Your task to perform on an android device: Do I have any events today? Image 0: 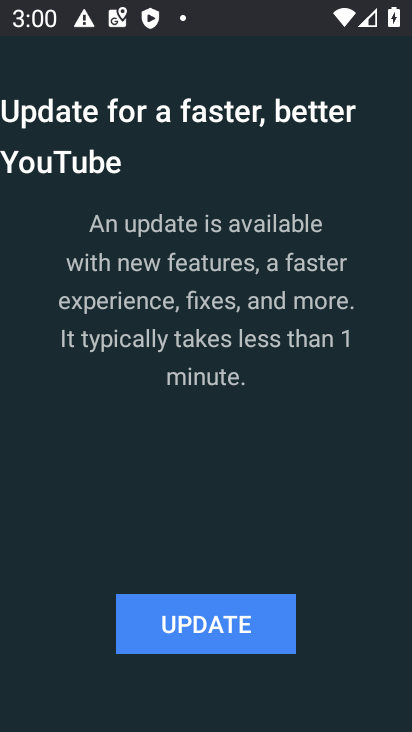
Step 0: press home button
Your task to perform on an android device: Do I have any events today? Image 1: 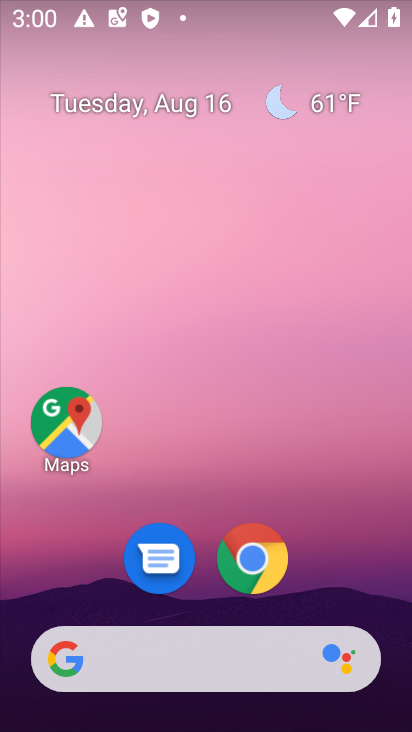
Step 1: drag from (382, 594) to (355, 181)
Your task to perform on an android device: Do I have any events today? Image 2: 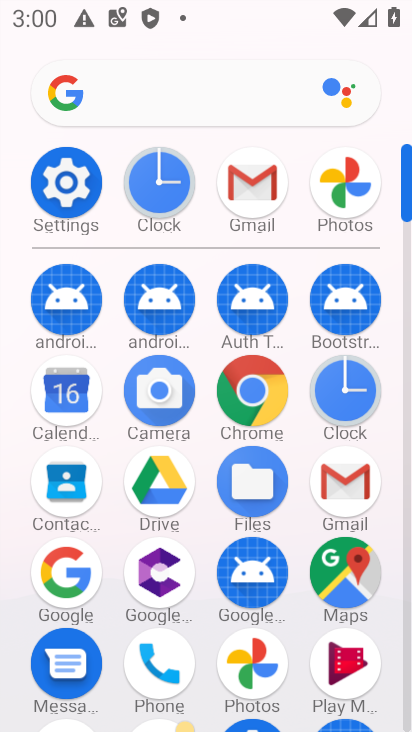
Step 2: click (409, 706)
Your task to perform on an android device: Do I have any events today? Image 3: 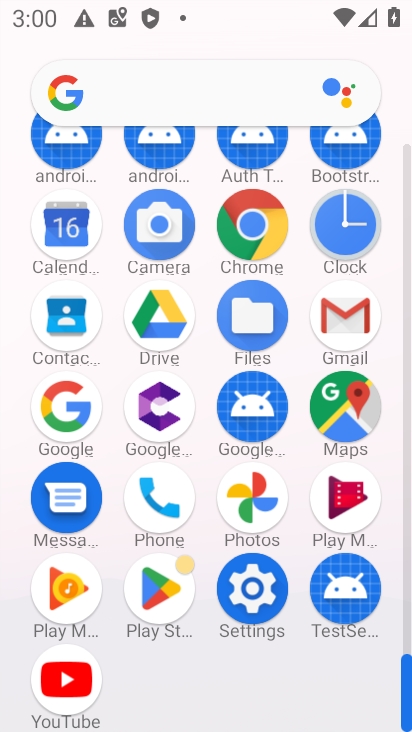
Step 3: click (64, 228)
Your task to perform on an android device: Do I have any events today? Image 4: 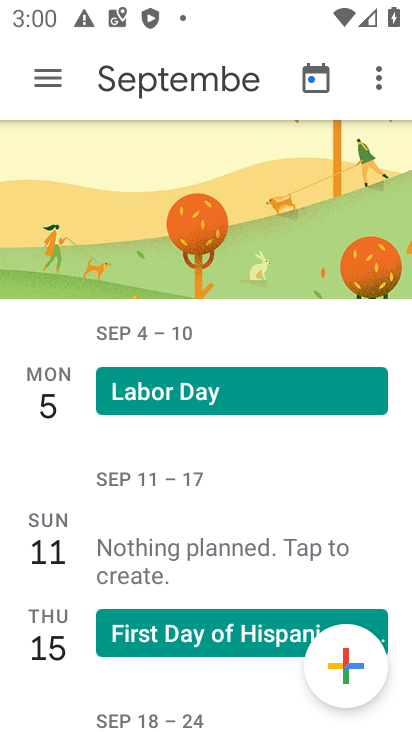
Step 4: click (45, 75)
Your task to perform on an android device: Do I have any events today? Image 5: 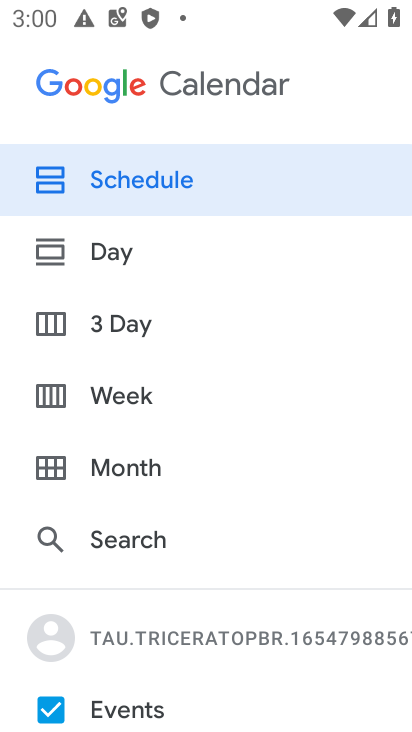
Step 5: click (110, 258)
Your task to perform on an android device: Do I have any events today? Image 6: 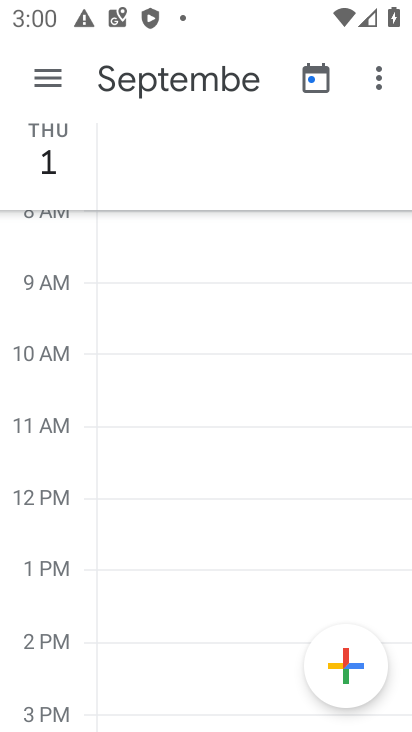
Step 6: click (305, 81)
Your task to perform on an android device: Do I have any events today? Image 7: 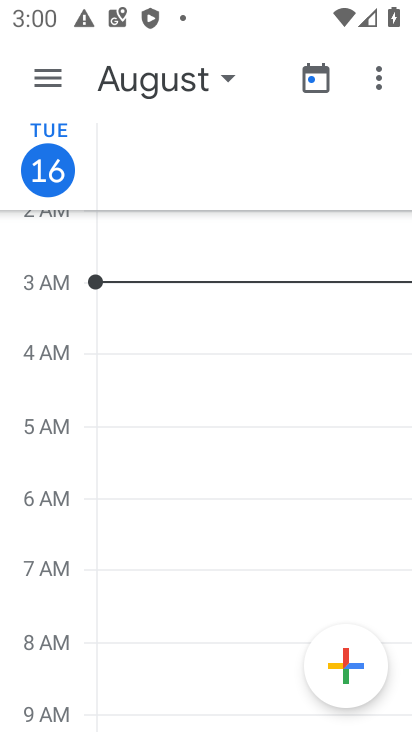
Step 7: task complete